Your task to perform on an android device: Search for vegetarian restaurants on Maps Image 0: 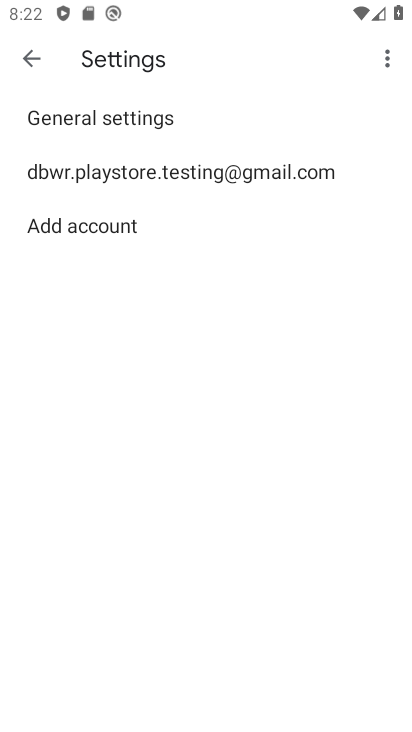
Step 0: press home button
Your task to perform on an android device: Search for vegetarian restaurants on Maps Image 1: 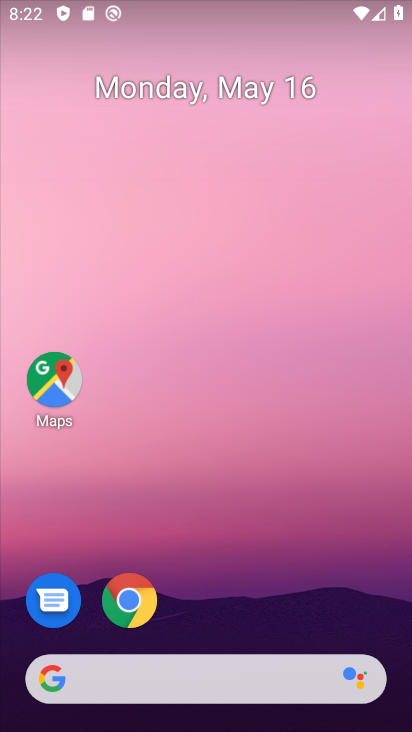
Step 1: drag from (302, 574) to (395, 159)
Your task to perform on an android device: Search for vegetarian restaurants on Maps Image 2: 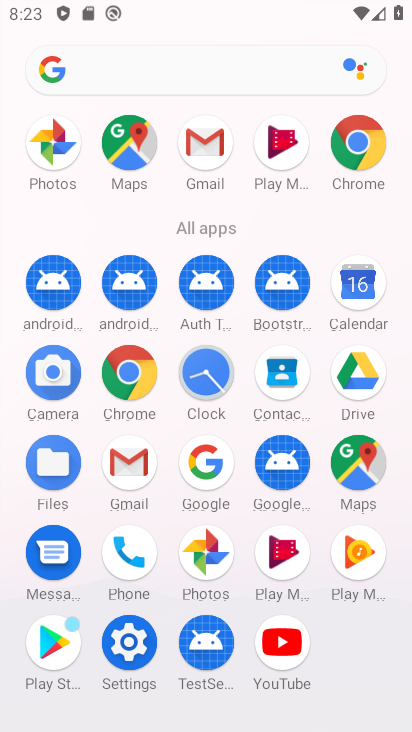
Step 2: click (141, 136)
Your task to perform on an android device: Search for vegetarian restaurants on Maps Image 3: 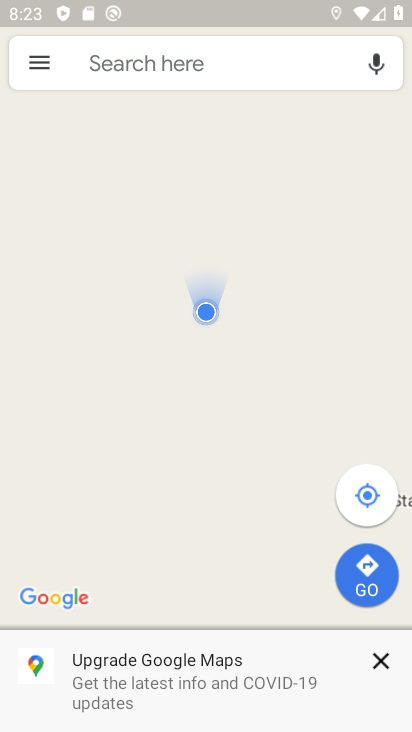
Step 3: click (186, 76)
Your task to perform on an android device: Search for vegetarian restaurants on Maps Image 4: 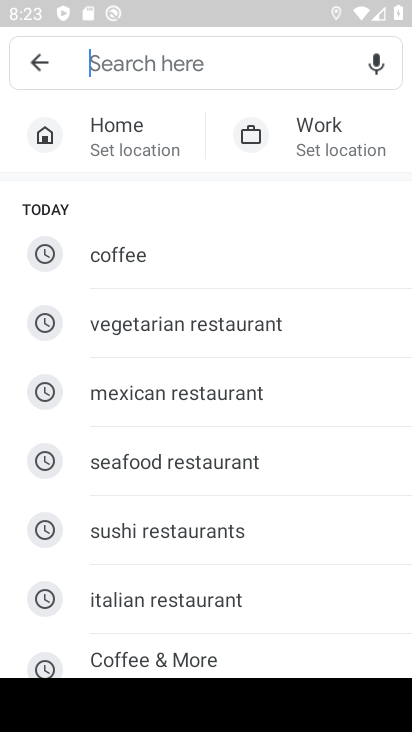
Step 4: click (195, 327)
Your task to perform on an android device: Search for vegetarian restaurants on Maps Image 5: 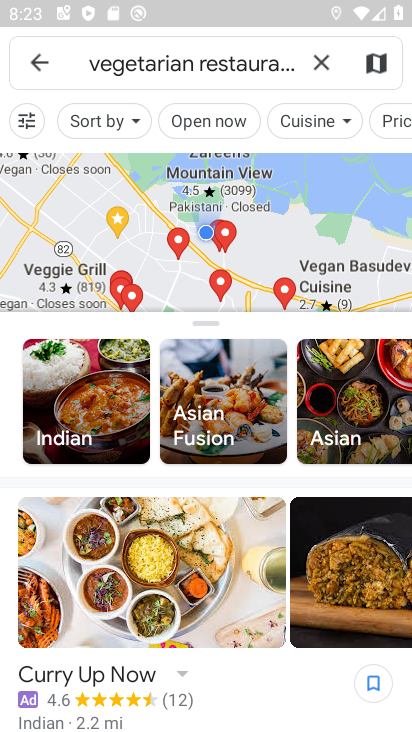
Step 5: task complete